Your task to perform on an android device: turn on sleep mode Image 0: 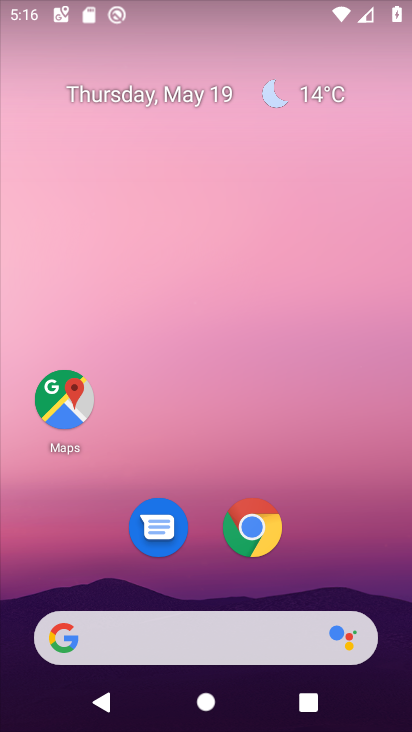
Step 0: drag from (331, 547) to (237, 2)
Your task to perform on an android device: turn on sleep mode Image 1: 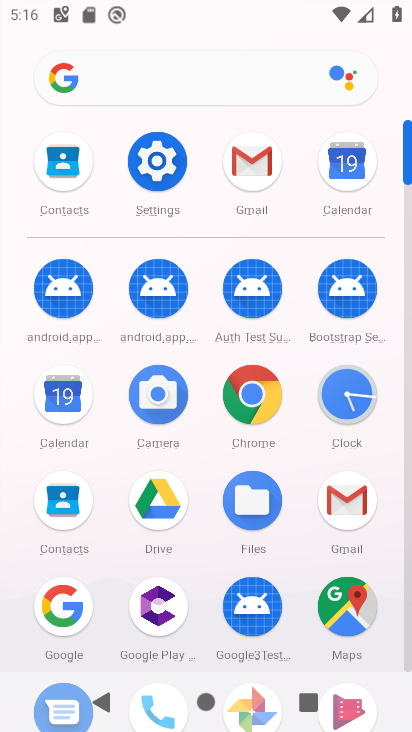
Step 1: click (152, 166)
Your task to perform on an android device: turn on sleep mode Image 2: 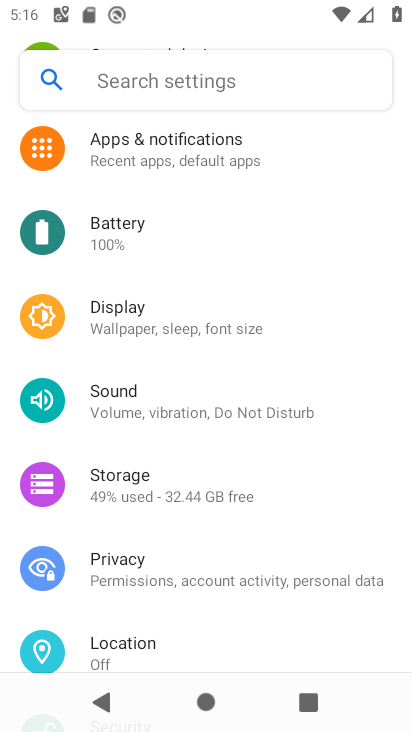
Step 2: click (179, 330)
Your task to perform on an android device: turn on sleep mode Image 3: 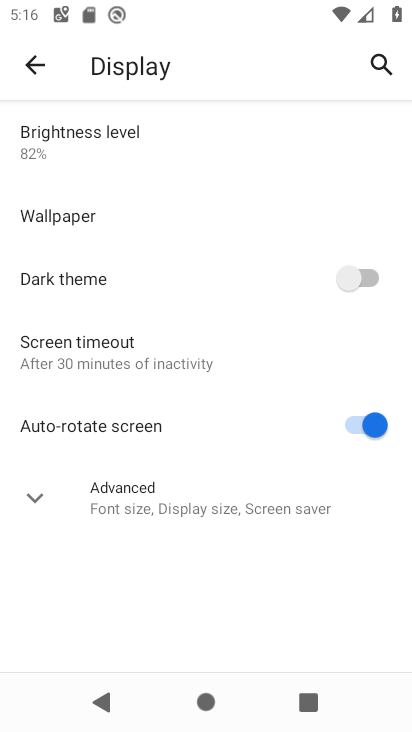
Step 3: task complete